Your task to perform on an android device: Do I have any events today? Image 0: 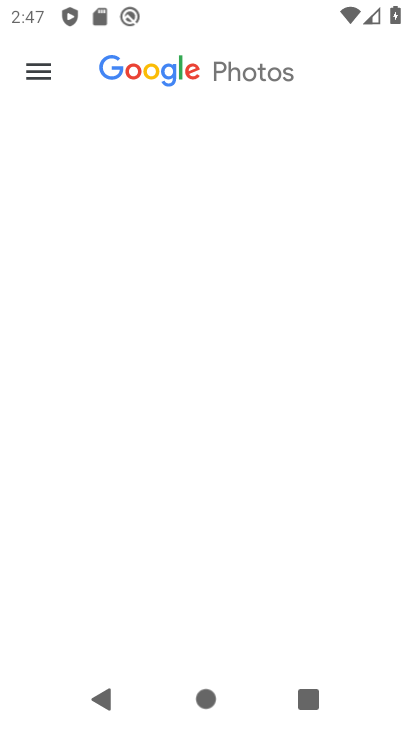
Step 0: press home button
Your task to perform on an android device: Do I have any events today? Image 1: 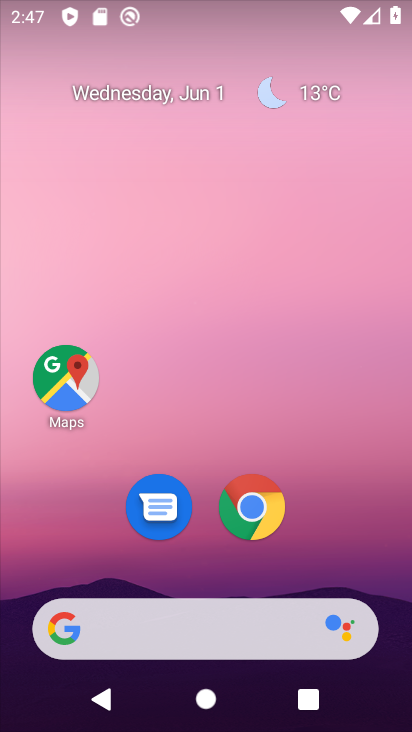
Step 1: press home button
Your task to perform on an android device: Do I have any events today? Image 2: 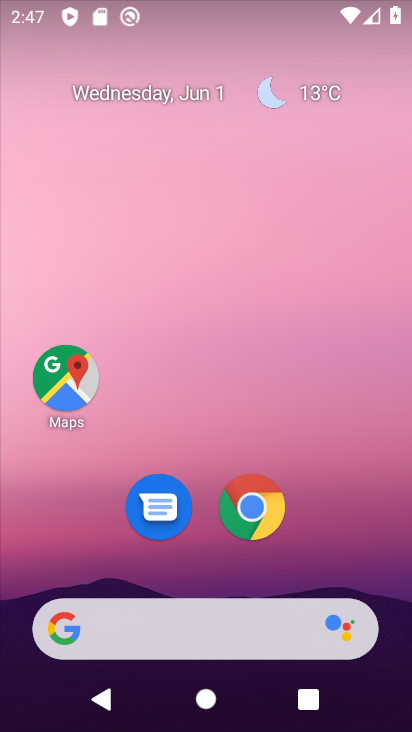
Step 2: drag from (370, 579) to (49, 191)
Your task to perform on an android device: Do I have any events today? Image 3: 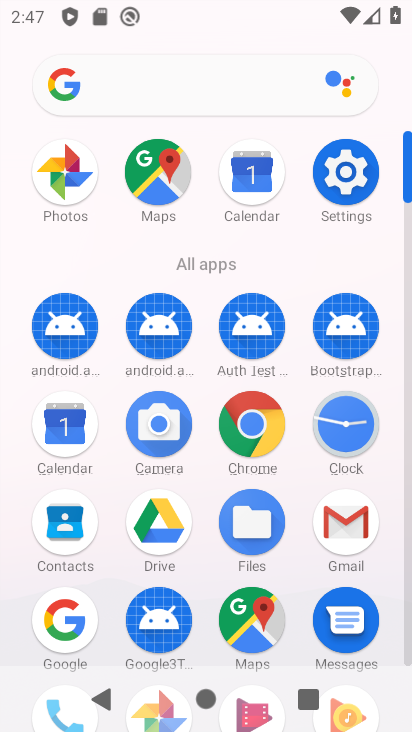
Step 3: click (248, 188)
Your task to perform on an android device: Do I have any events today? Image 4: 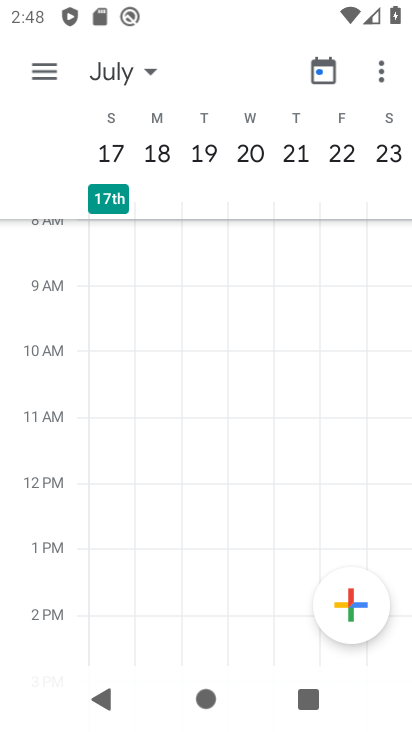
Step 4: click (132, 70)
Your task to perform on an android device: Do I have any events today? Image 5: 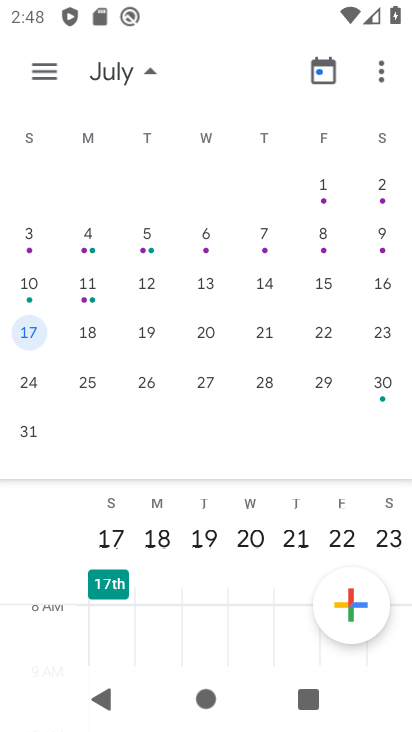
Step 5: drag from (29, 331) to (406, 302)
Your task to perform on an android device: Do I have any events today? Image 6: 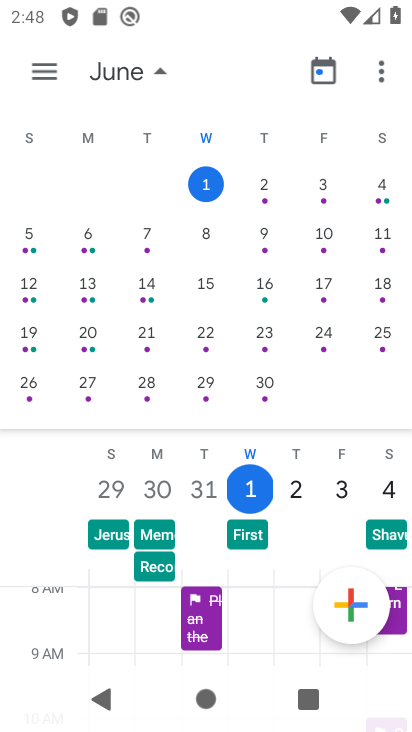
Step 6: click (206, 184)
Your task to perform on an android device: Do I have any events today? Image 7: 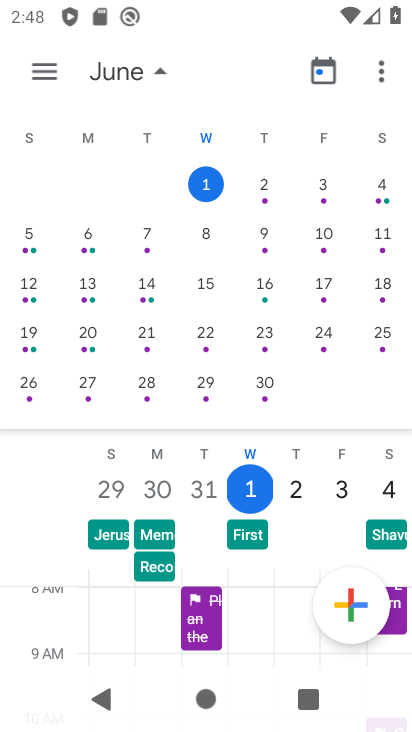
Step 7: click (131, 71)
Your task to perform on an android device: Do I have any events today? Image 8: 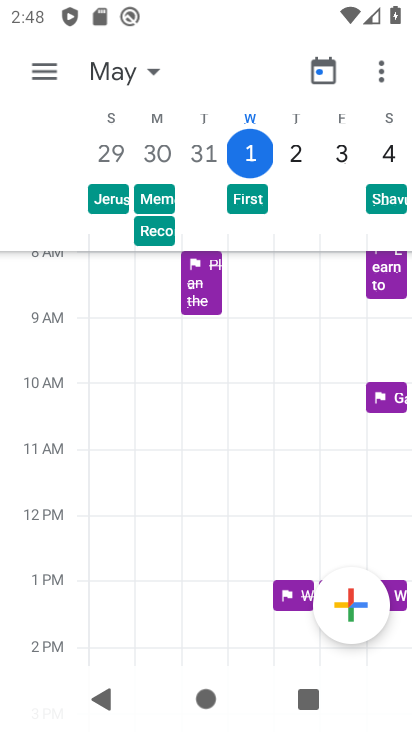
Step 8: click (53, 73)
Your task to perform on an android device: Do I have any events today? Image 9: 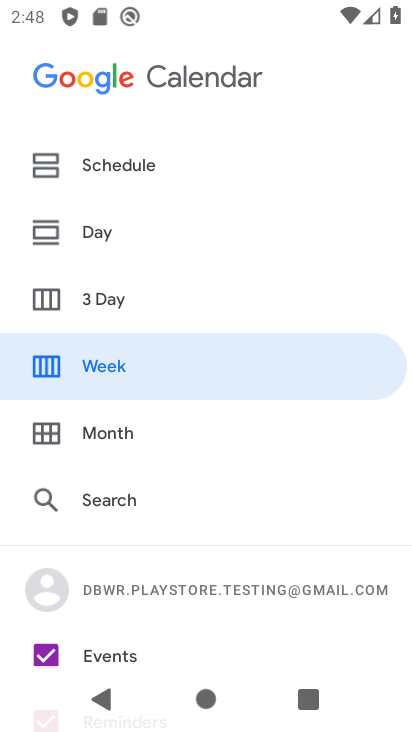
Step 9: click (76, 163)
Your task to perform on an android device: Do I have any events today? Image 10: 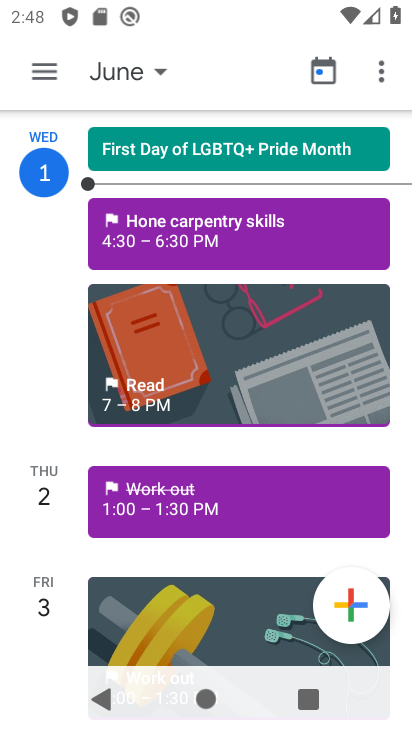
Step 10: task complete